Your task to perform on an android device: stop showing notifications on the lock screen Image 0: 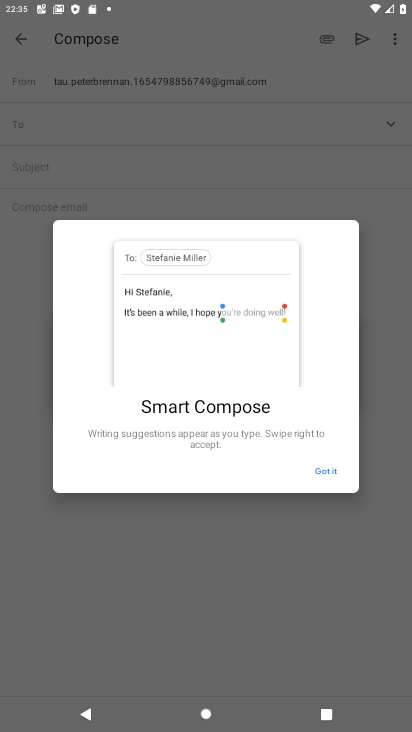
Step 0: press home button
Your task to perform on an android device: stop showing notifications on the lock screen Image 1: 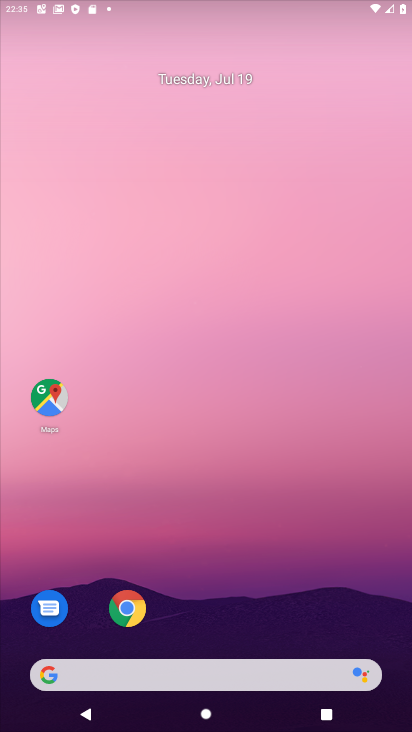
Step 1: drag from (266, 626) to (244, 191)
Your task to perform on an android device: stop showing notifications on the lock screen Image 2: 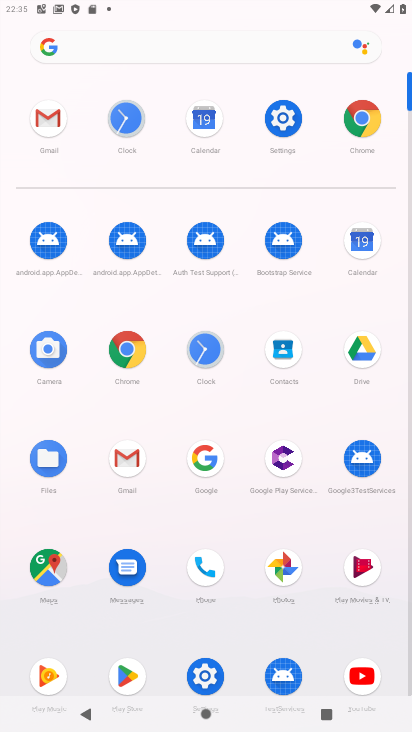
Step 2: click (288, 116)
Your task to perform on an android device: stop showing notifications on the lock screen Image 3: 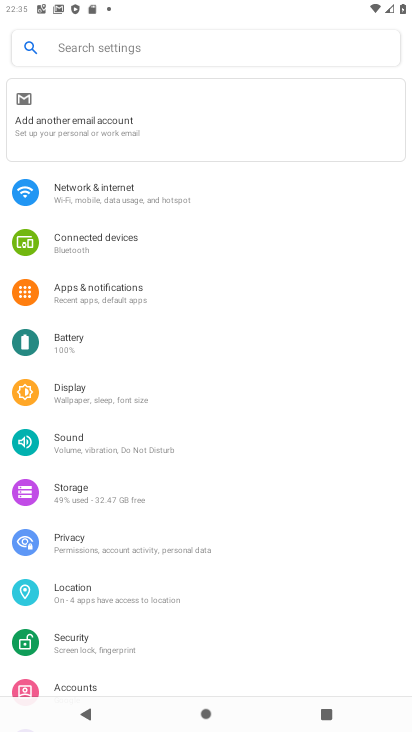
Step 3: click (98, 298)
Your task to perform on an android device: stop showing notifications on the lock screen Image 4: 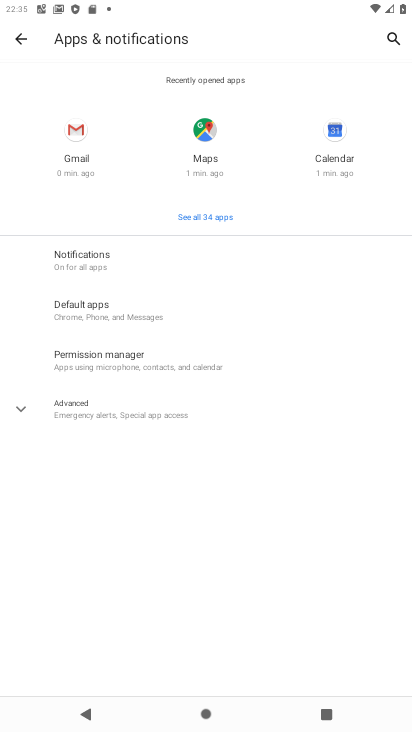
Step 4: click (107, 256)
Your task to perform on an android device: stop showing notifications on the lock screen Image 5: 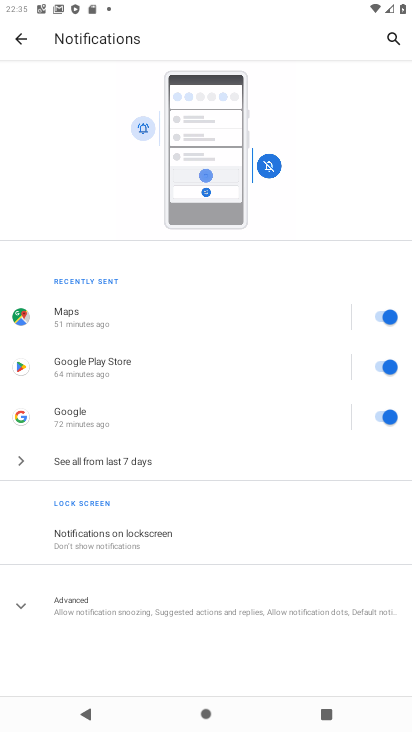
Step 5: click (149, 515)
Your task to perform on an android device: stop showing notifications on the lock screen Image 6: 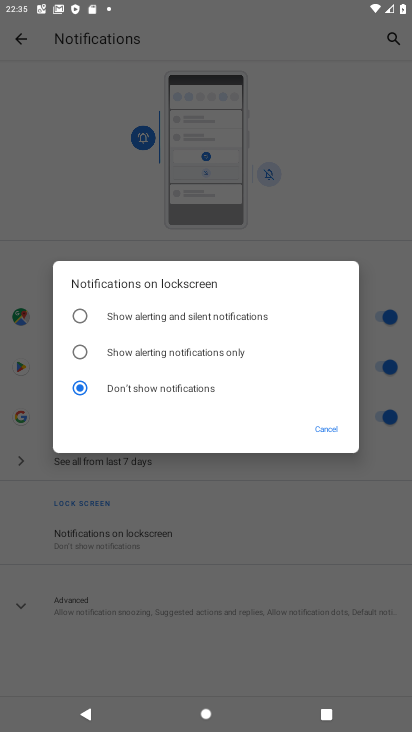
Step 6: task complete